Your task to perform on an android device: Open internet settings Image 0: 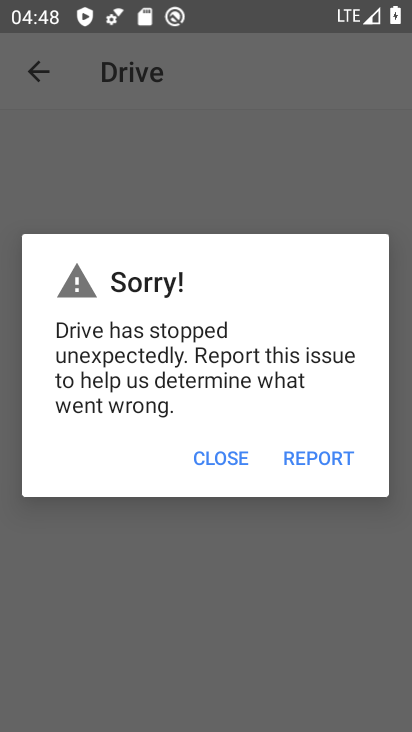
Step 0: press home button
Your task to perform on an android device: Open internet settings Image 1: 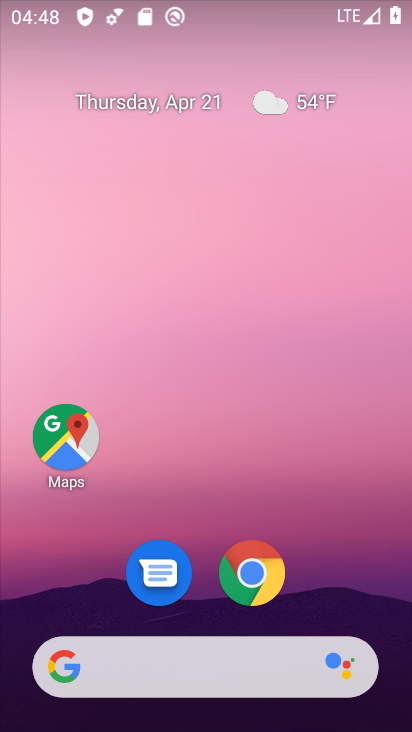
Step 1: drag from (365, 609) to (326, 200)
Your task to perform on an android device: Open internet settings Image 2: 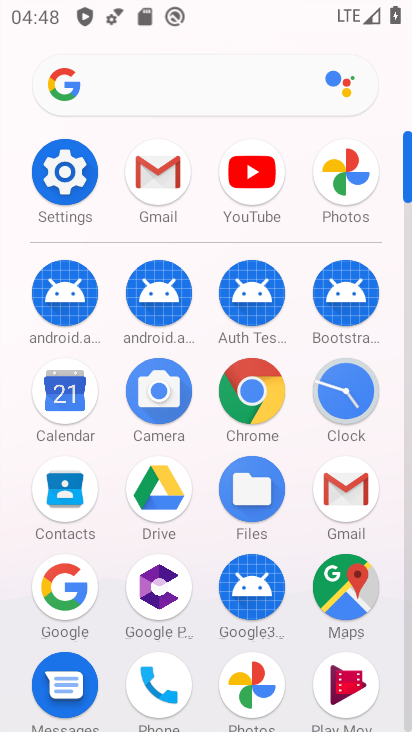
Step 2: click (407, 712)
Your task to perform on an android device: Open internet settings Image 3: 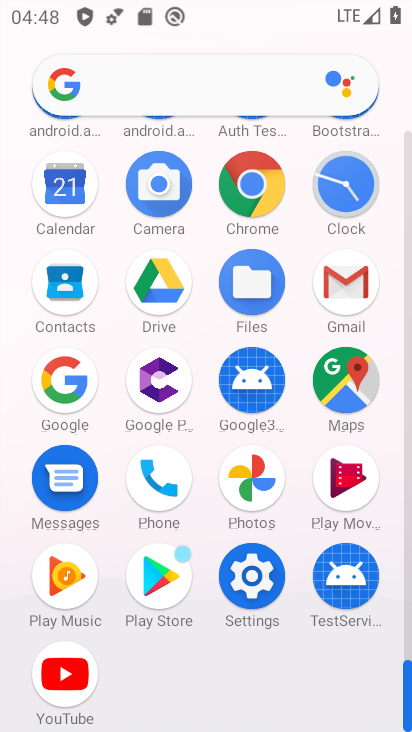
Step 3: click (250, 574)
Your task to perform on an android device: Open internet settings Image 4: 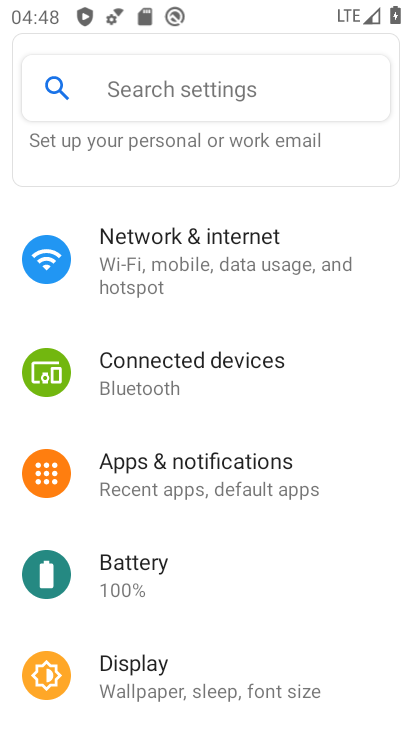
Step 4: click (170, 248)
Your task to perform on an android device: Open internet settings Image 5: 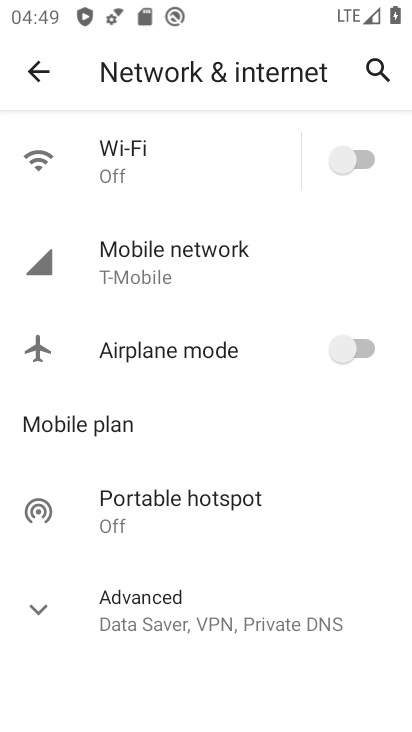
Step 5: click (134, 250)
Your task to perform on an android device: Open internet settings Image 6: 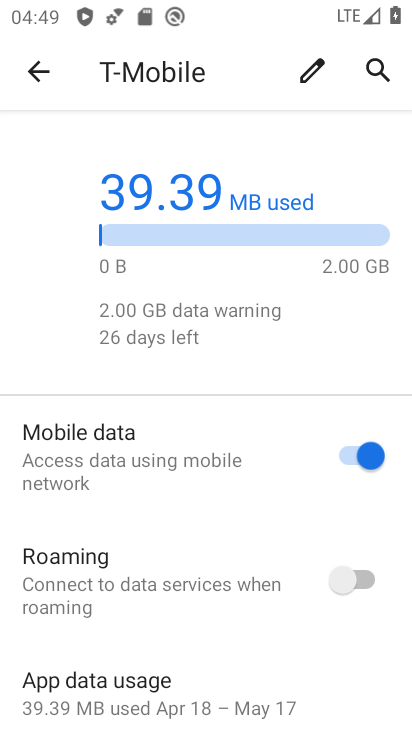
Step 6: drag from (206, 453) to (257, 189)
Your task to perform on an android device: Open internet settings Image 7: 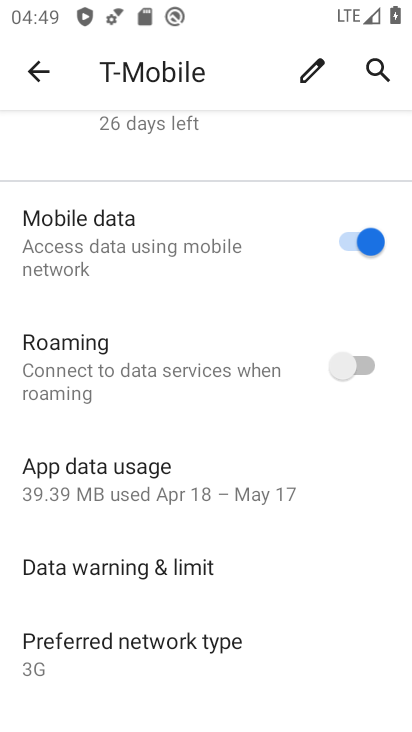
Step 7: drag from (281, 583) to (268, 173)
Your task to perform on an android device: Open internet settings Image 8: 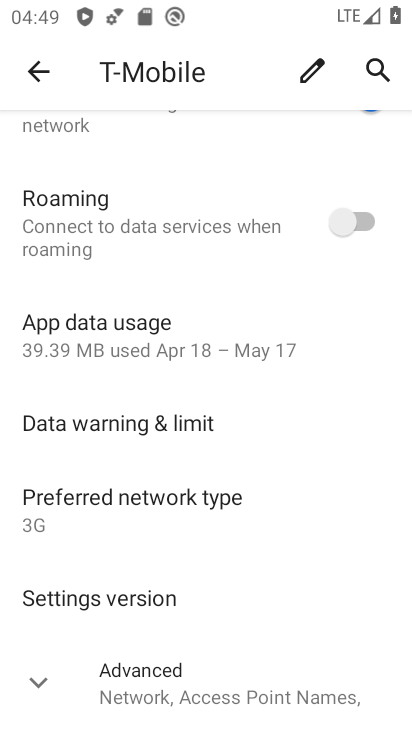
Step 8: click (33, 680)
Your task to perform on an android device: Open internet settings Image 9: 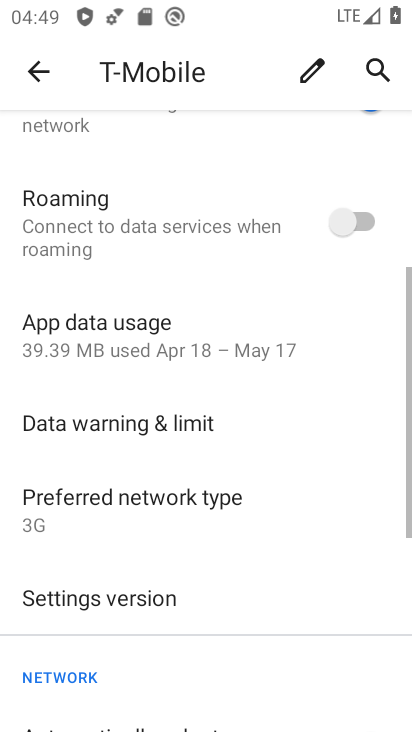
Step 9: task complete